Your task to perform on an android device: snooze an email in the gmail app Image 0: 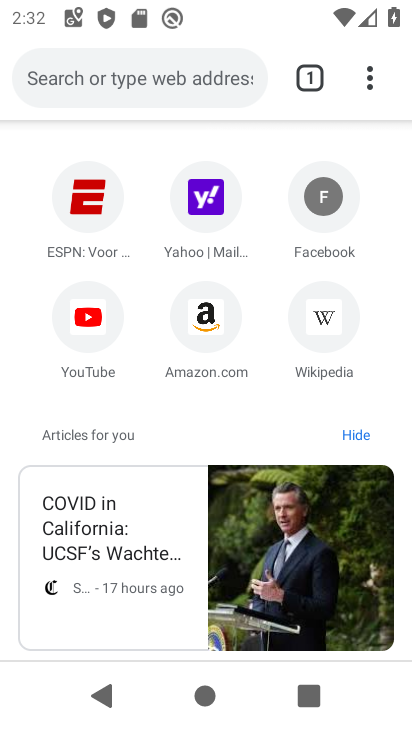
Step 0: press home button
Your task to perform on an android device: snooze an email in the gmail app Image 1: 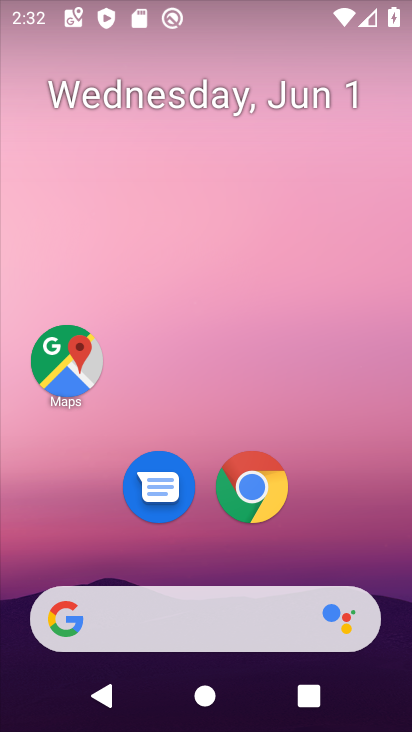
Step 1: drag from (374, 529) to (404, 140)
Your task to perform on an android device: snooze an email in the gmail app Image 2: 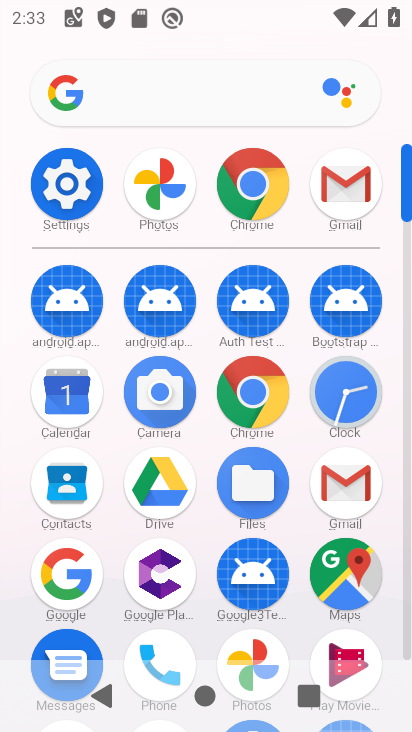
Step 2: click (342, 475)
Your task to perform on an android device: snooze an email in the gmail app Image 3: 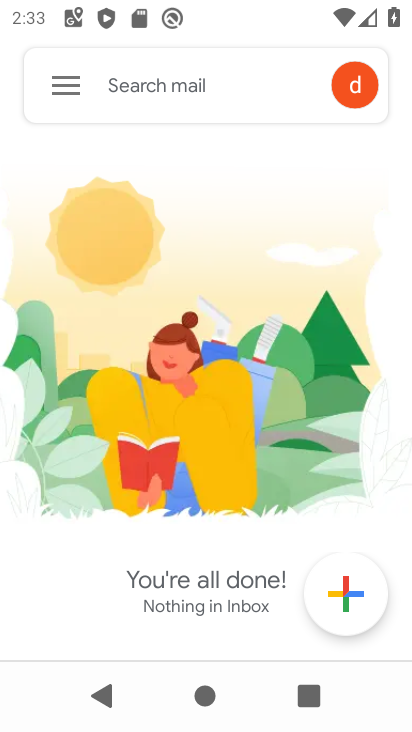
Step 3: click (62, 80)
Your task to perform on an android device: snooze an email in the gmail app Image 4: 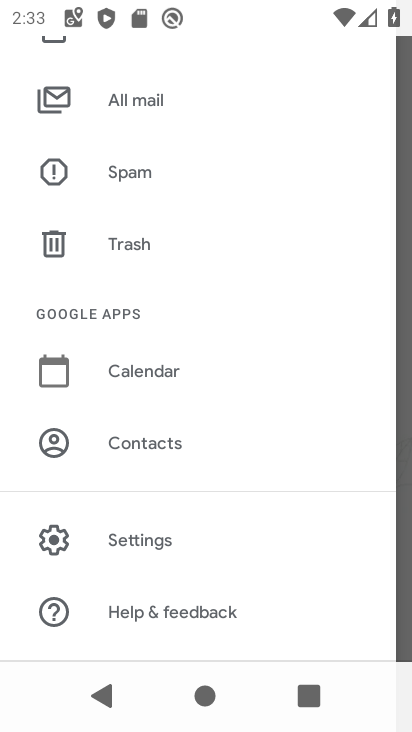
Step 4: drag from (330, 252) to (314, 370)
Your task to perform on an android device: snooze an email in the gmail app Image 5: 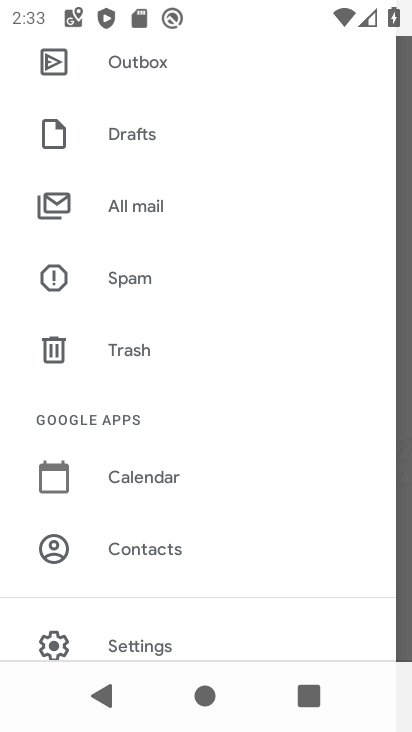
Step 5: drag from (315, 246) to (314, 402)
Your task to perform on an android device: snooze an email in the gmail app Image 6: 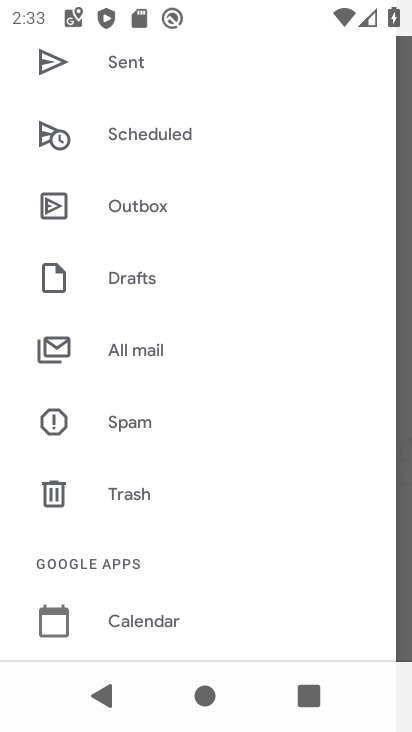
Step 6: drag from (315, 238) to (316, 371)
Your task to perform on an android device: snooze an email in the gmail app Image 7: 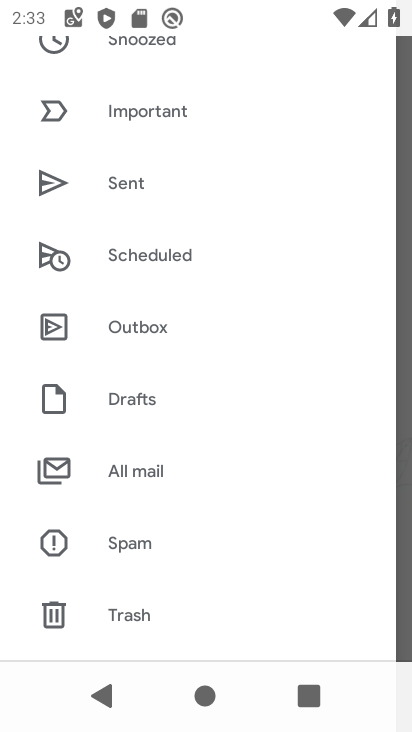
Step 7: drag from (328, 170) to (326, 313)
Your task to perform on an android device: snooze an email in the gmail app Image 8: 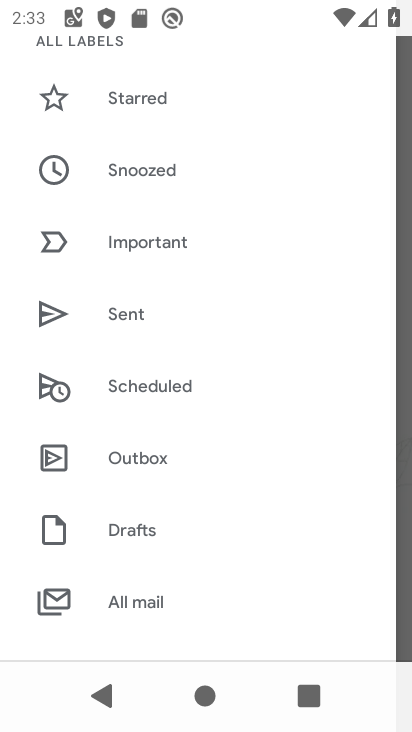
Step 8: drag from (333, 165) to (330, 338)
Your task to perform on an android device: snooze an email in the gmail app Image 9: 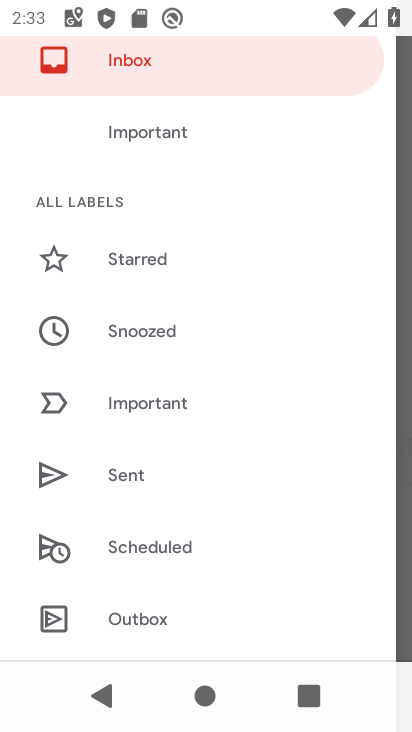
Step 9: drag from (319, 188) to (309, 345)
Your task to perform on an android device: snooze an email in the gmail app Image 10: 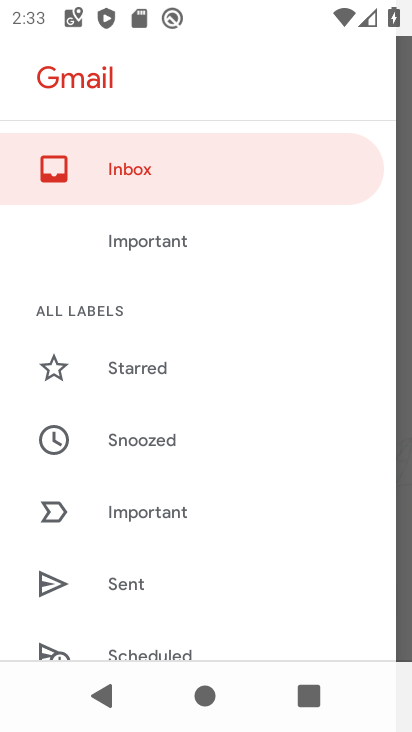
Step 10: click (171, 443)
Your task to perform on an android device: snooze an email in the gmail app Image 11: 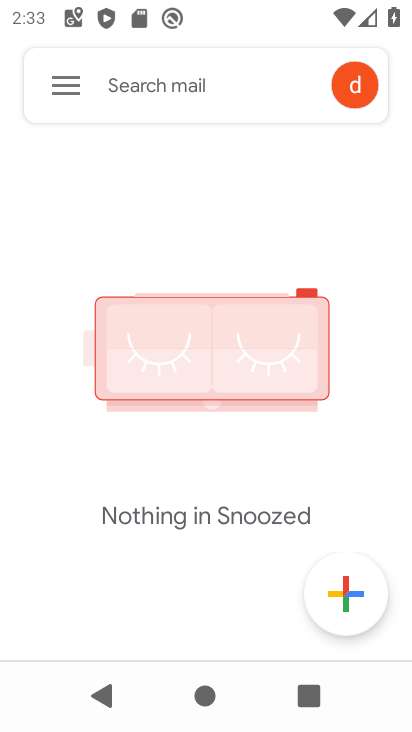
Step 11: task complete